Your task to perform on an android device: add a label to a message in the gmail app Image 0: 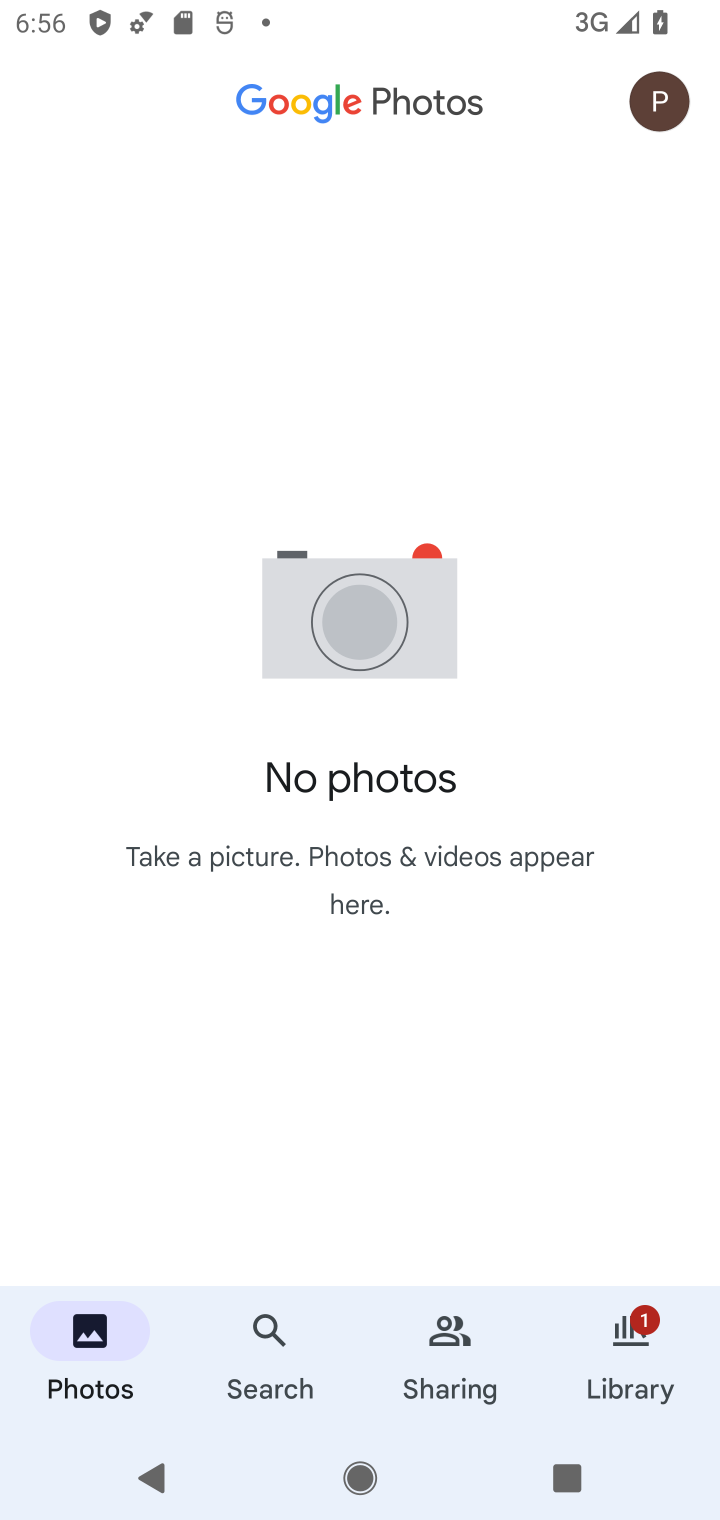
Step 0: press home button
Your task to perform on an android device: add a label to a message in the gmail app Image 1: 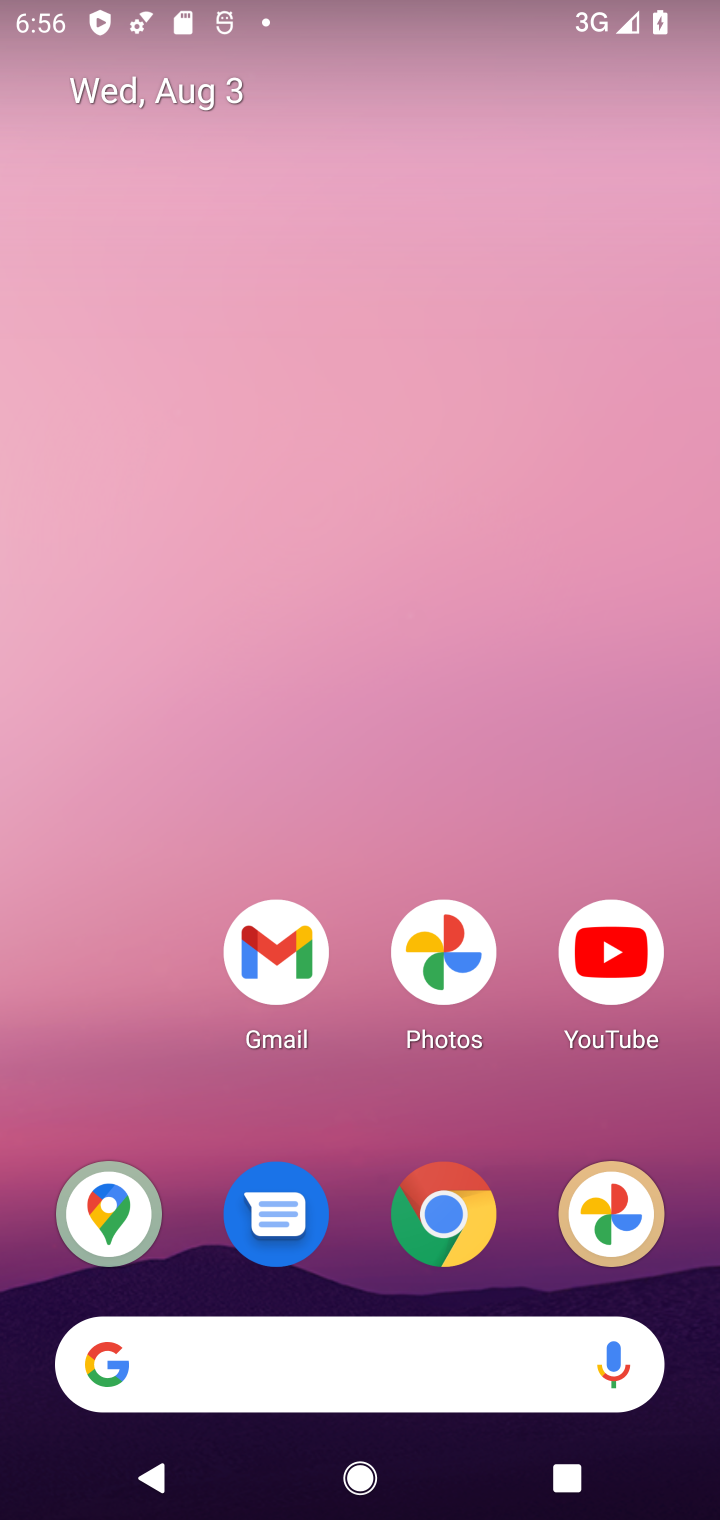
Step 1: click (244, 966)
Your task to perform on an android device: add a label to a message in the gmail app Image 2: 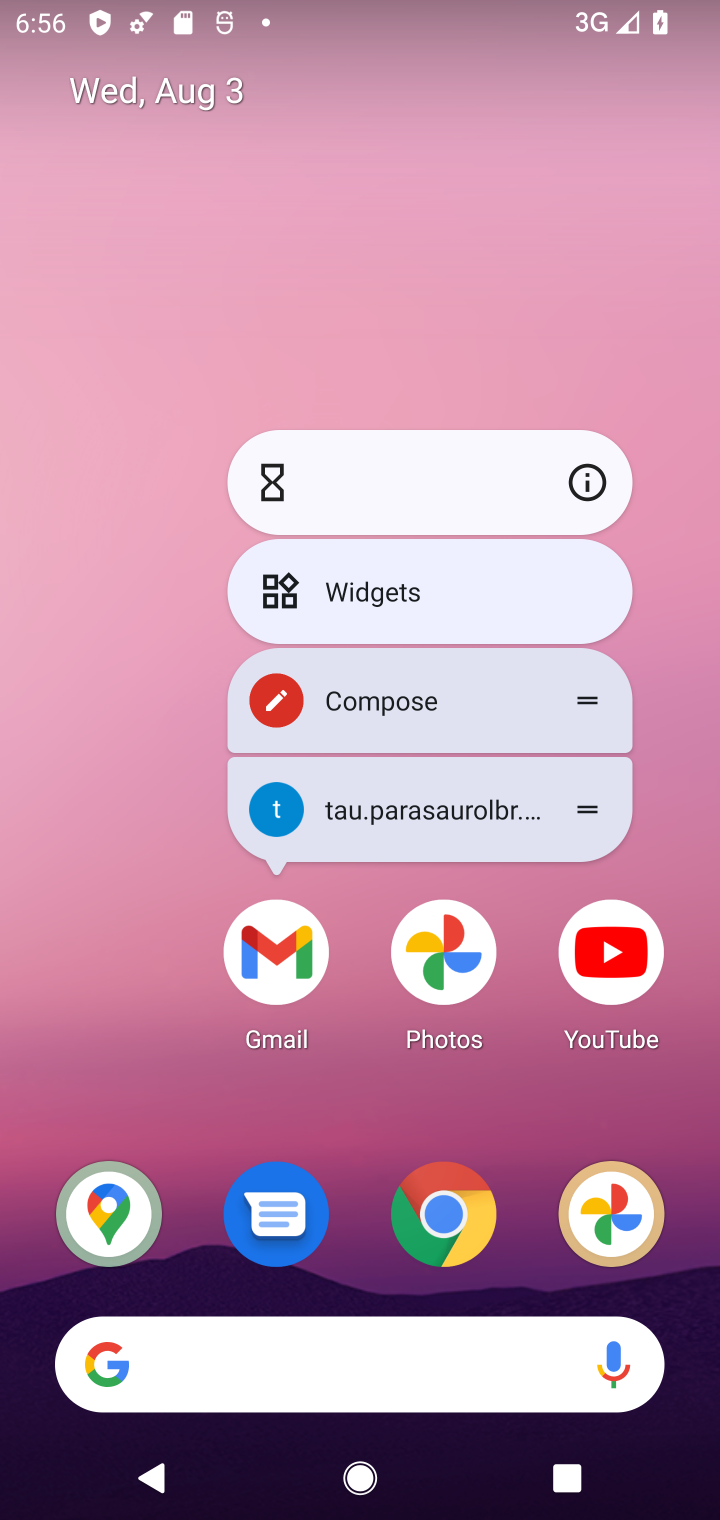
Step 2: click (246, 962)
Your task to perform on an android device: add a label to a message in the gmail app Image 3: 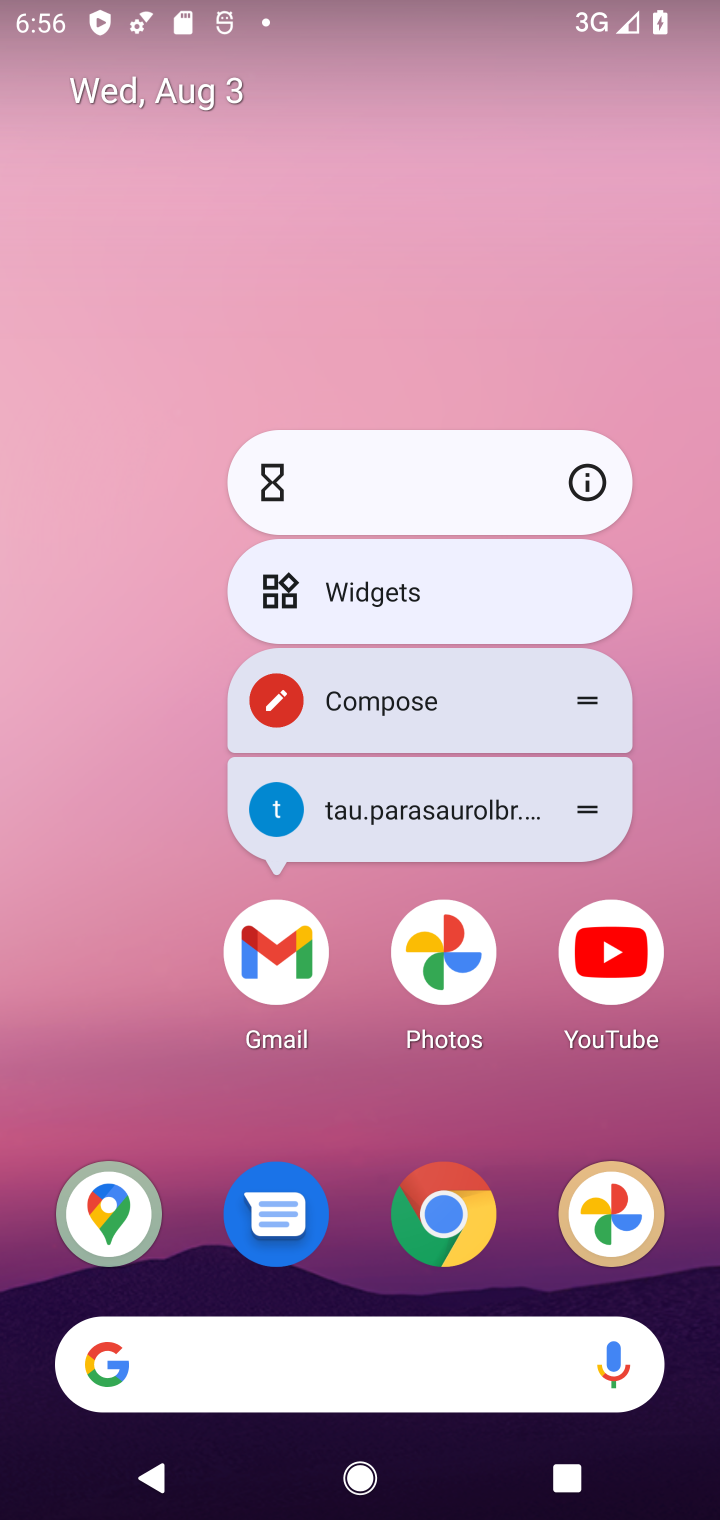
Step 3: click (271, 953)
Your task to perform on an android device: add a label to a message in the gmail app Image 4: 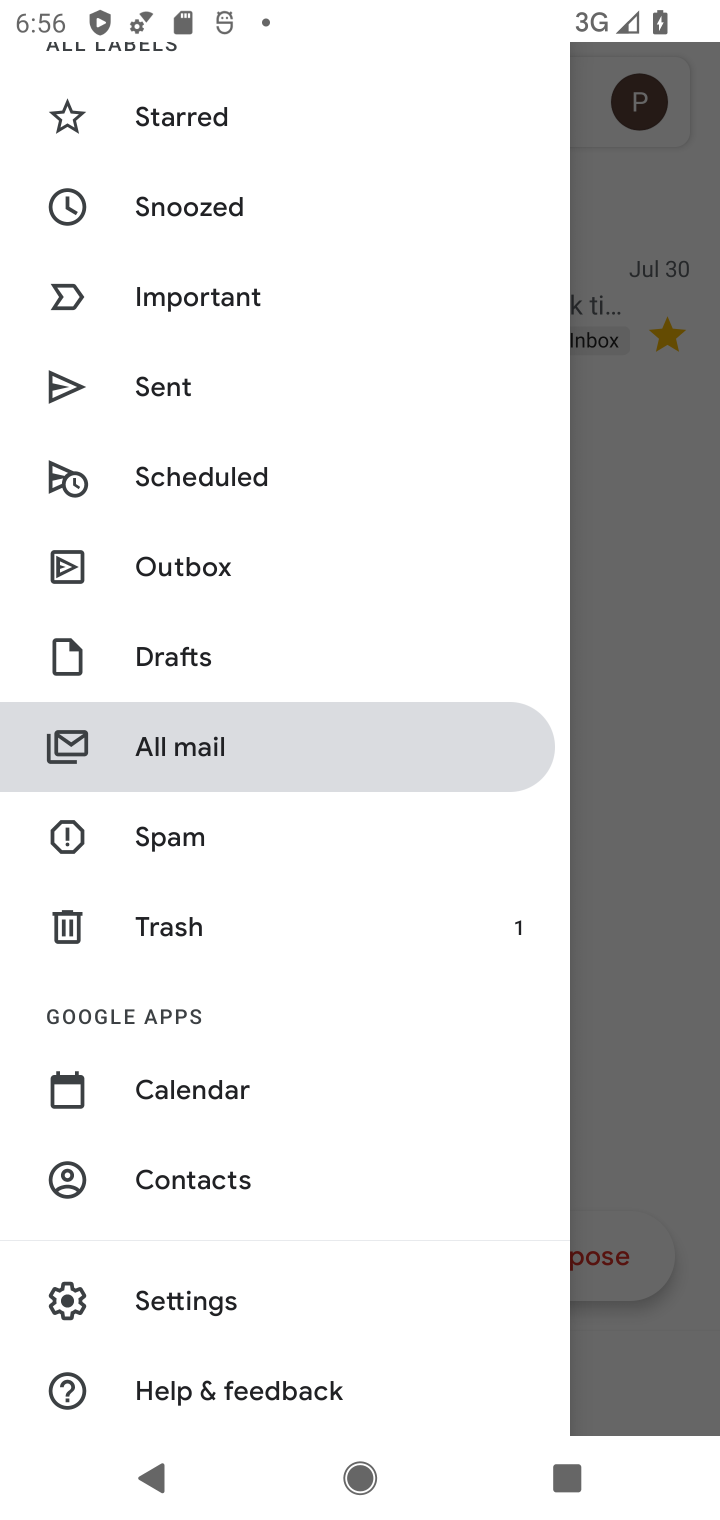
Step 4: drag from (323, 565) to (468, 1358)
Your task to perform on an android device: add a label to a message in the gmail app Image 5: 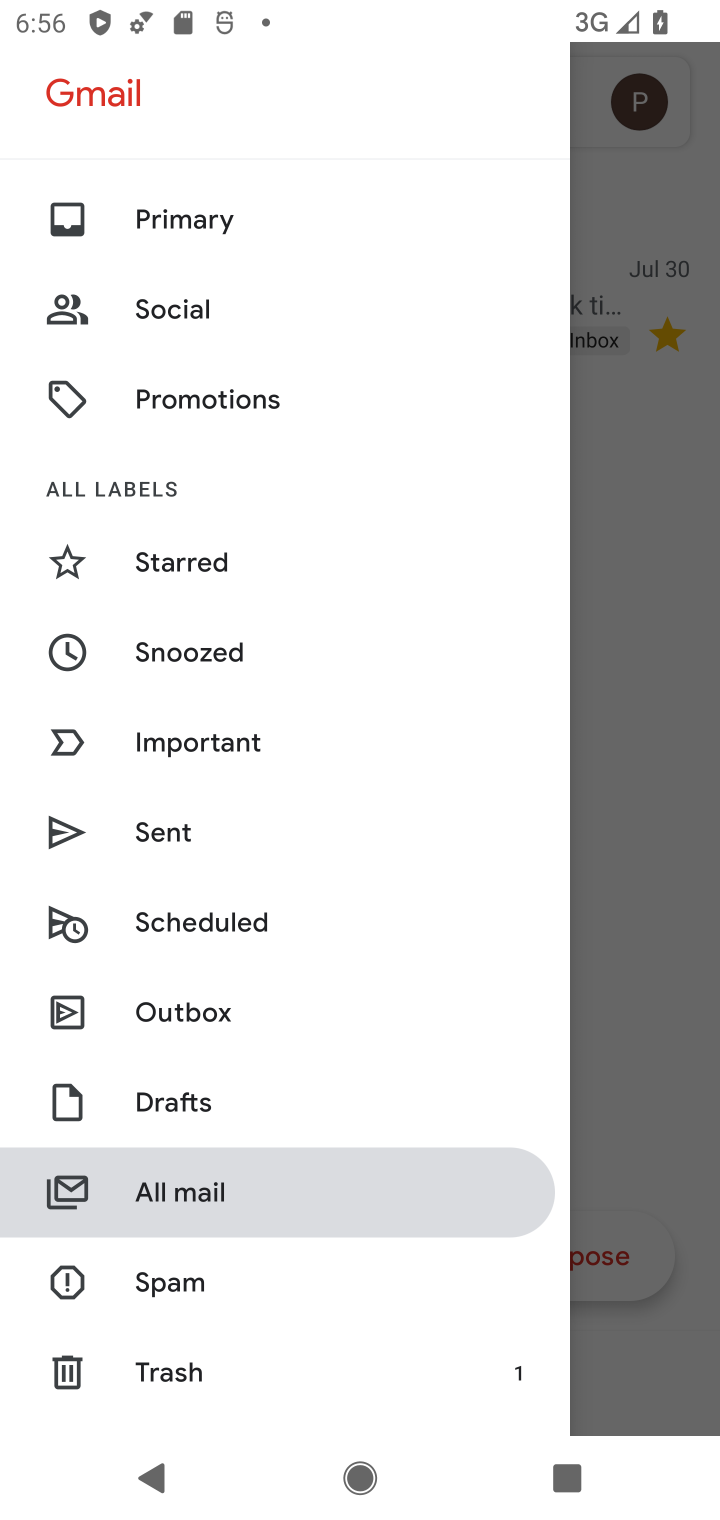
Step 5: click (208, 1185)
Your task to perform on an android device: add a label to a message in the gmail app Image 6: 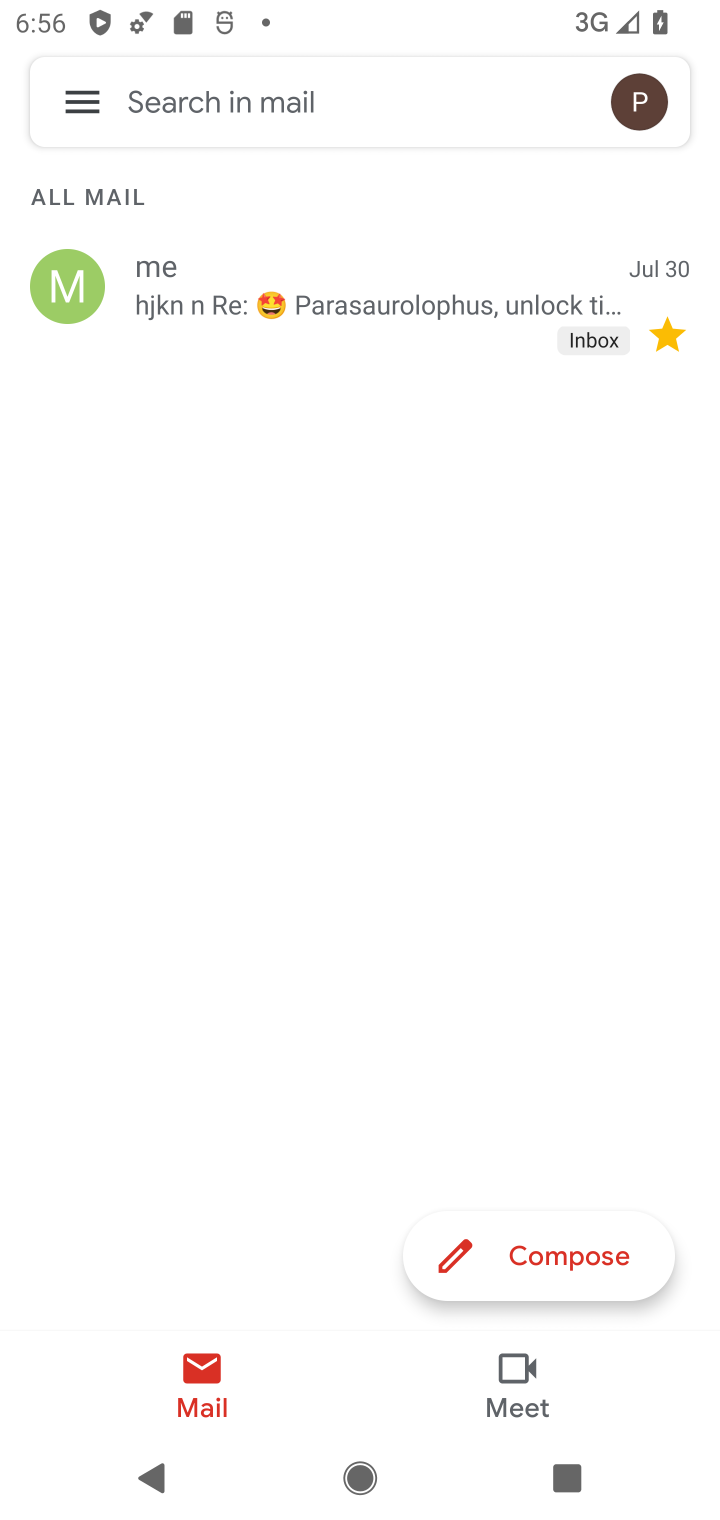
Step 6: click (426, 274)
Your task to perform on an android device: add a label to a message in the gmail app Image 7: 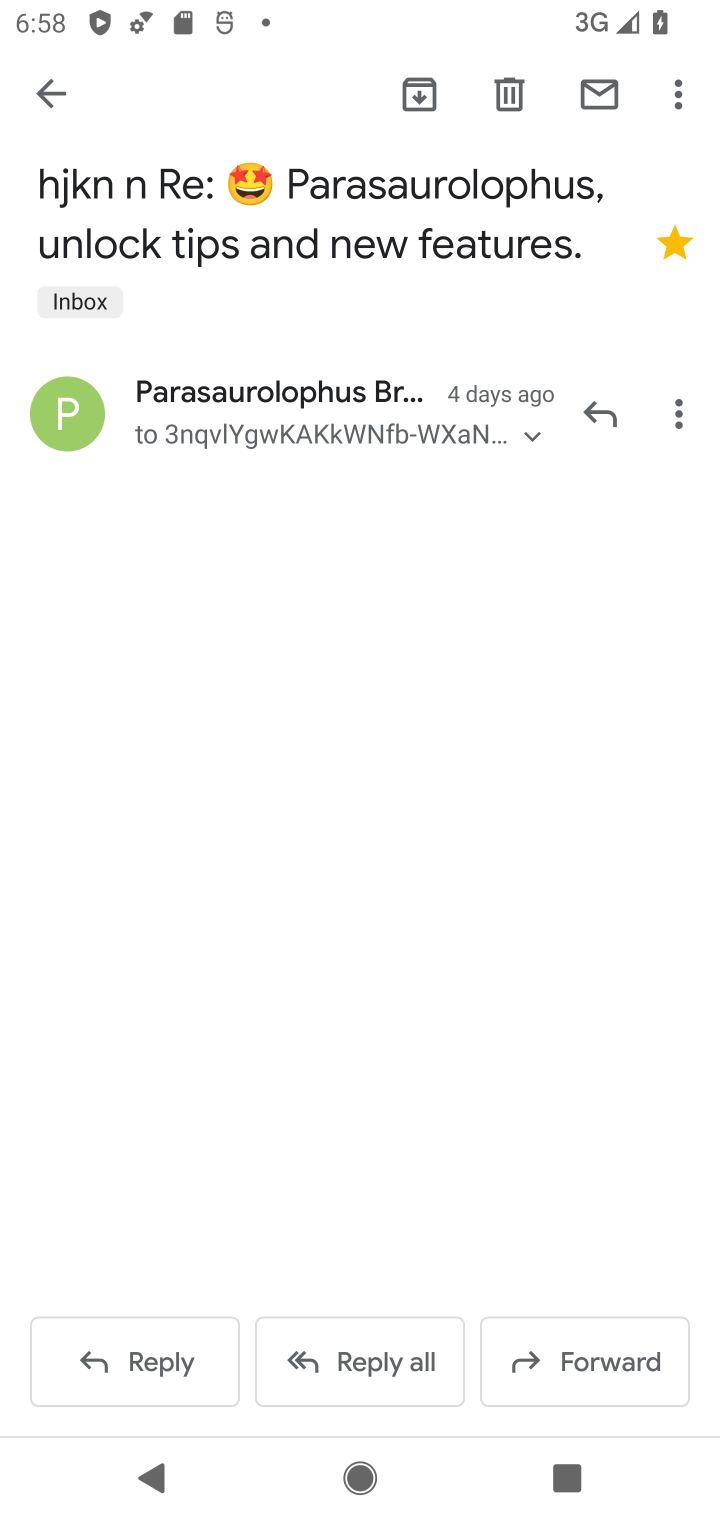
Step 7: task complete